Your task to perform on an android device: change notification settings in the gmail app Image 0: 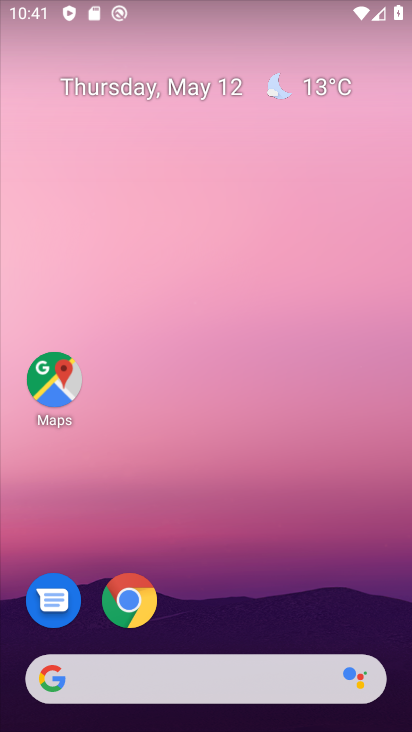
Step 0: drag from (399, 632) to (278, 129)
Your task to perform on an android device: change notification settings in the gmail app Image 1: 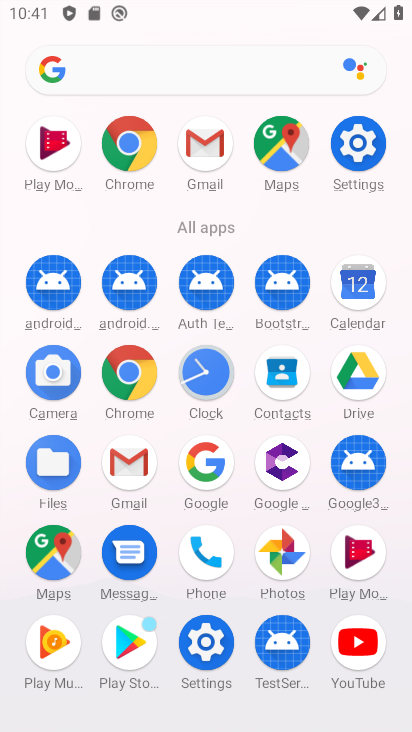
Step 1: click (126, 458)
Your task to perform on an android device: change notification settings in the gmail app Image 2: 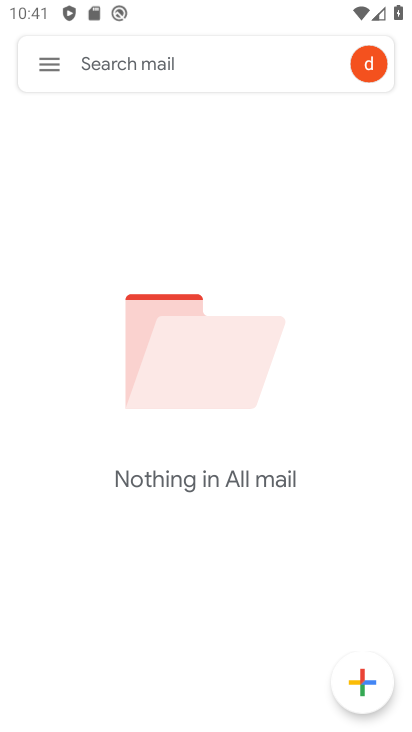
Step 2: click (55, 62)
Your task to perform on an android device: change notification settings in the gmail app Image 3: 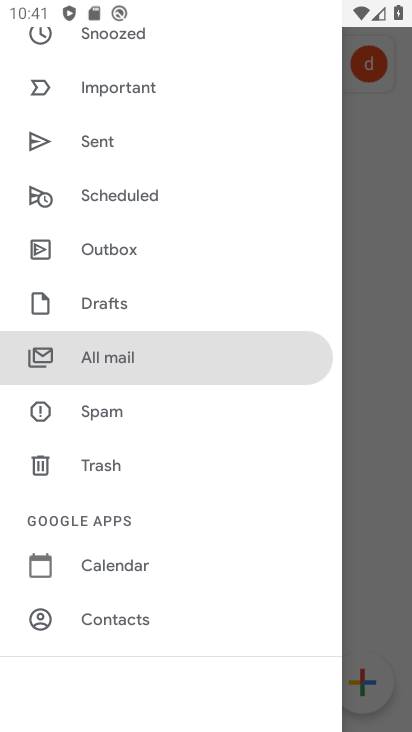
Step 3: drag from (201, 605) to (249, 249)
Your task to perform on an android device: change notification settings in the gmail app Image 4: 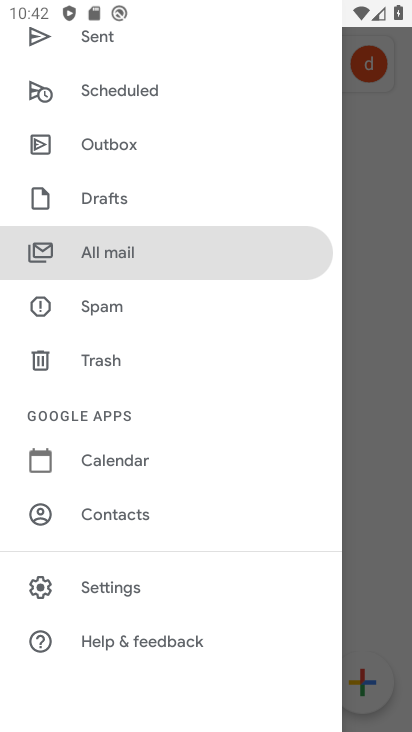
Step 4: click (104, 587)
Your task to perform on an android device: change notification settings in the gmail app Image 5: 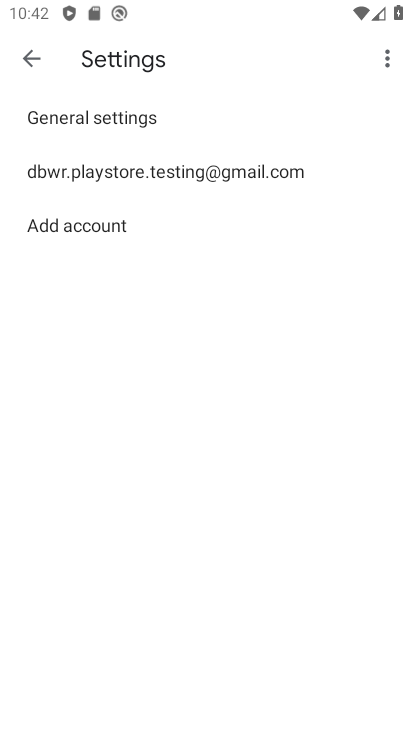
Step 5: click (183, 178)
Your task to perform on an android device: change notification settings in the gmail app Image 6: 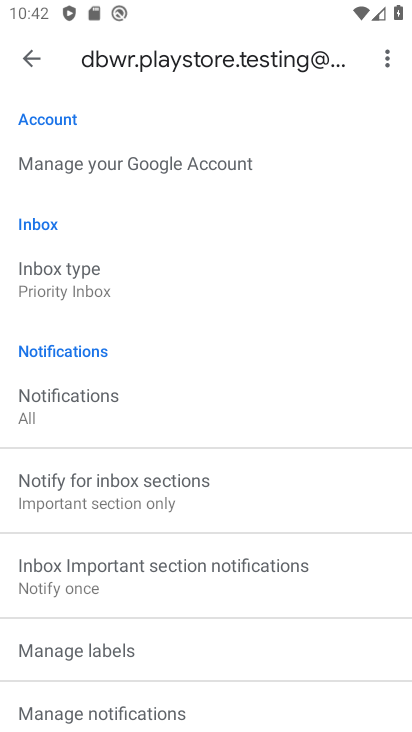
Step 6: drag from (348, 567) to (337, 336)
Your task to perform on an android device: change notification settings in the gmail app Image 7: 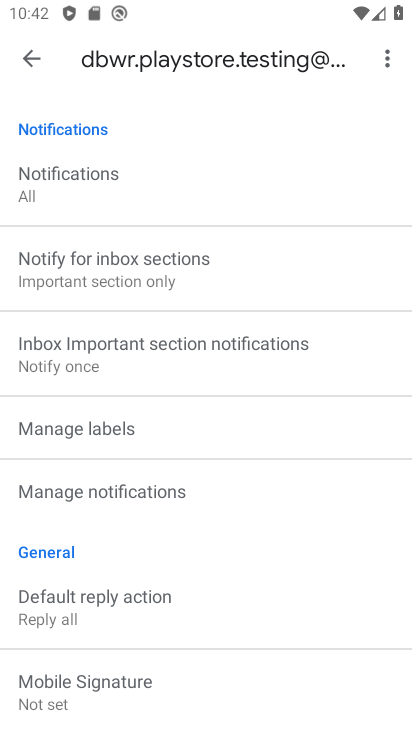
Step 7: click (88, 485)
Your task to perform on an android device: change notification settings in the gmail app Image 8: 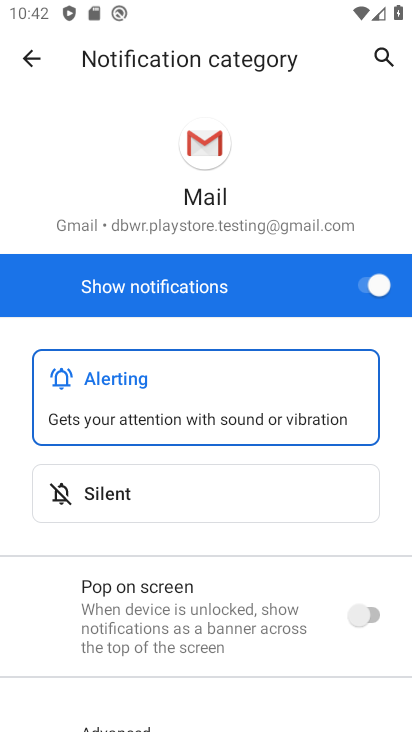
Step 8: drag from (315, 574) to (287, 161)
Your task to perform on an android device: change notification settings in the gmail app Image 9: 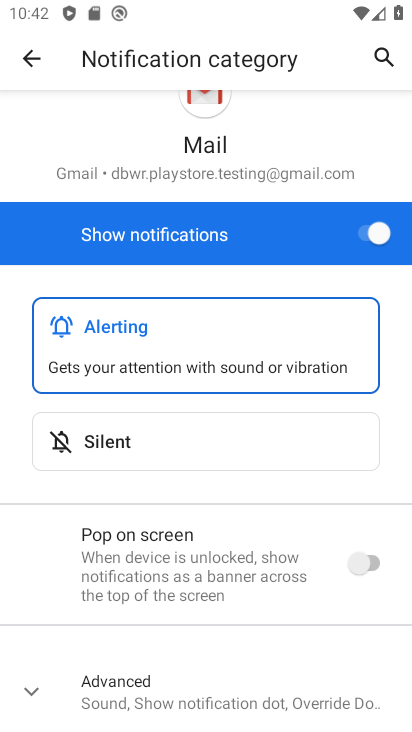
Step 9: click (374, 562)
Your task to perform on an android device: change notification settings in the gmail app Image 10: 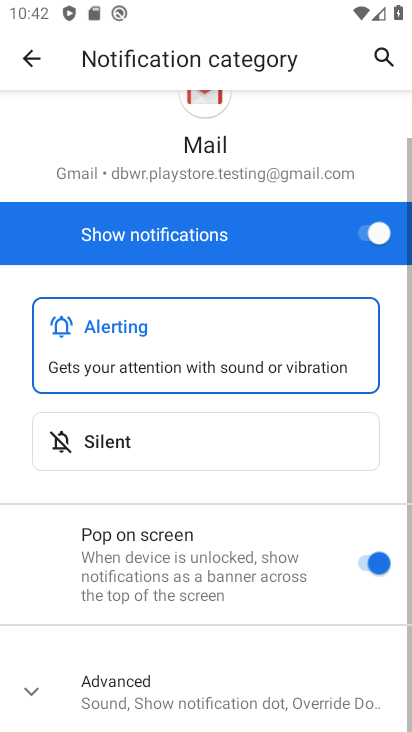
Step 10: click (35, 690)
Your task to perform on an android device: change notification settings in the gmail app Image 11: 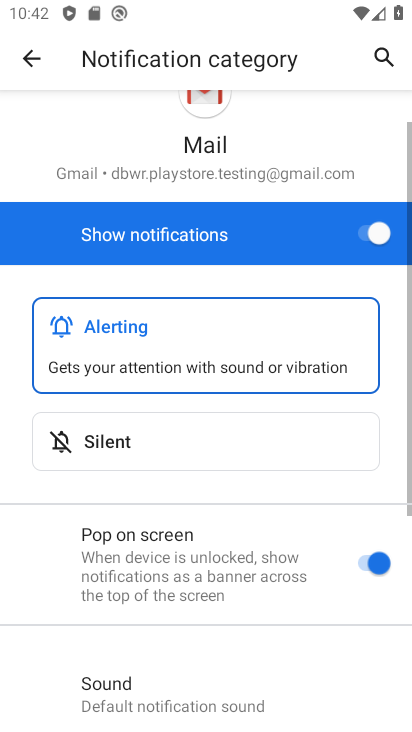
Step 11: drag from (247, 661) to (279, 203)
Your task to perform on an android device: change notification settings in the gmail app Image 12: 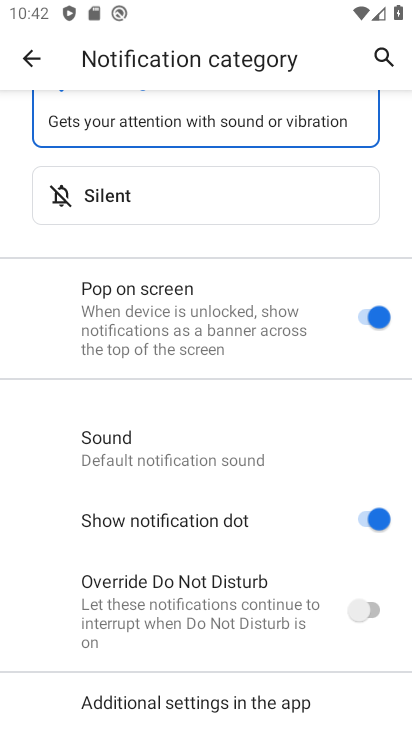
Step 12: drag from (349, 654) to (289, 311)
Your task to perform on an android device: change notification settings in the gmail app Image 13: 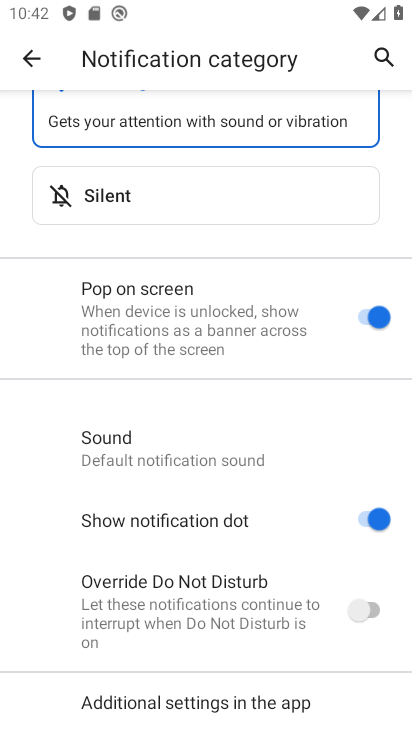
Step 13: click (370, 611)
Your task to perform on an android device: change notification settings in the gmail app Image 14: 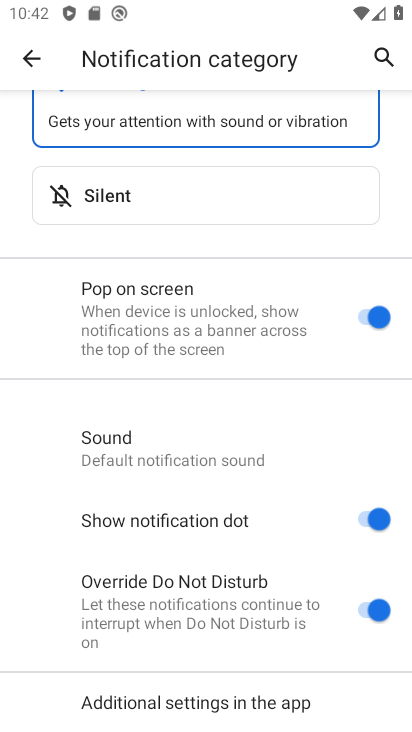
Step 14: task complete